Your task to perform on an android device: Go to settings Image 0: 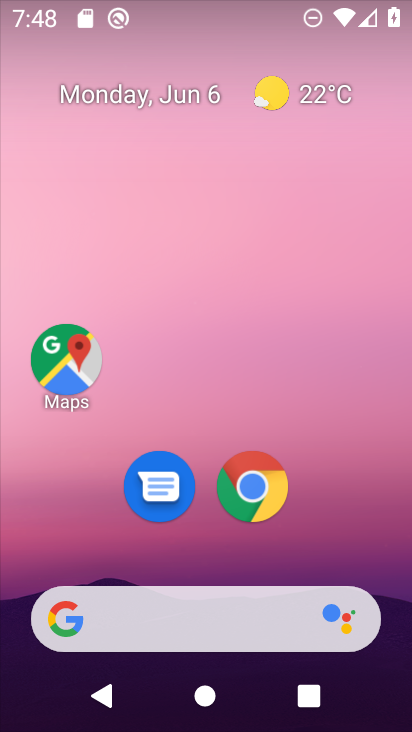
Step 0: drag from (389, 633) to (323, 111)
Your task to perform on an android device: Go to settings Image 1: 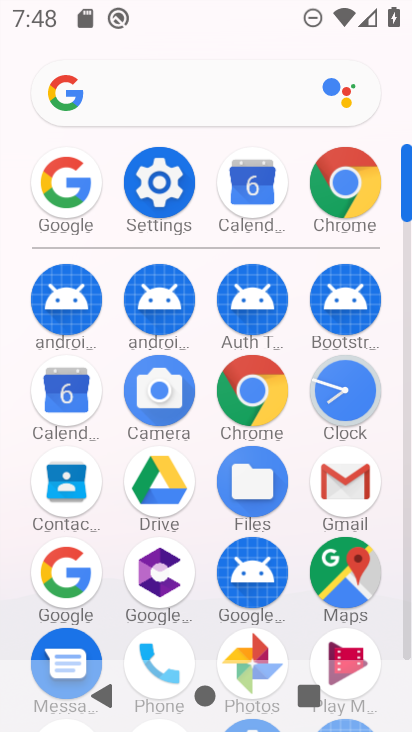
Step 1: click (163, 196)
Your task to perform on an android device: Go to settings Image 2: 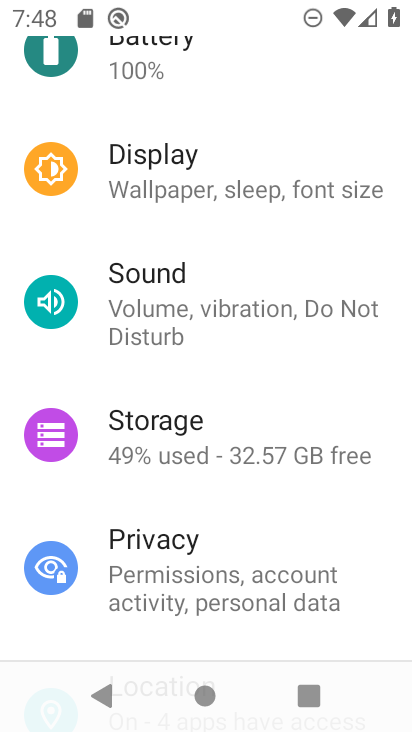
Step 2: task complete